Your task to perform on an android device: turn off picture-in-picture Image 0: 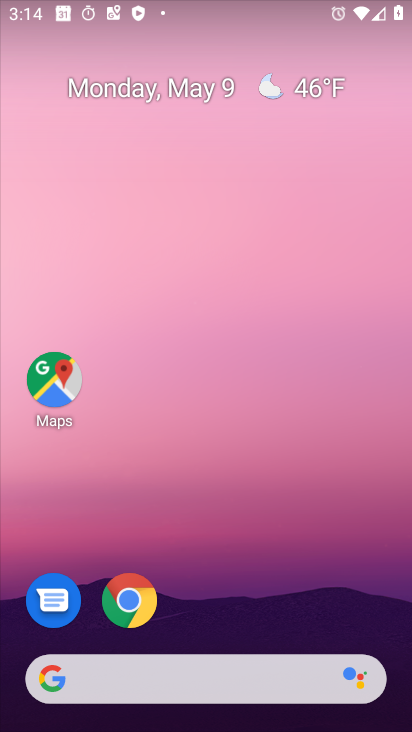
Step 0: drag from (202, 575) to (288, 13)
Your task to perform on an android device: turn off picture-in-picture Image 1: 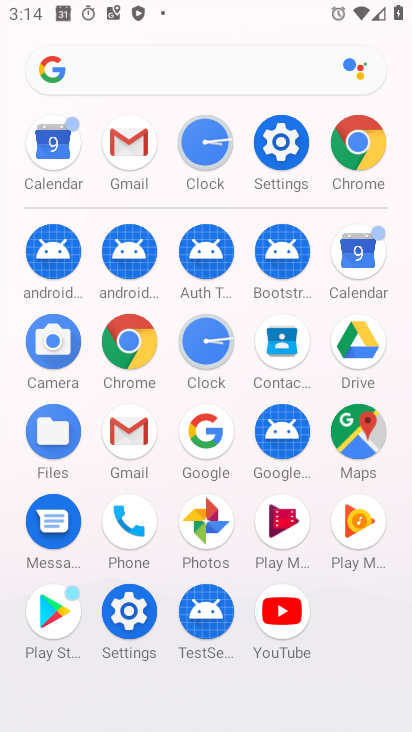
Step 1: click (288, 141)
Your task to perform on an android device: turn off picture-in-picture Image 2: 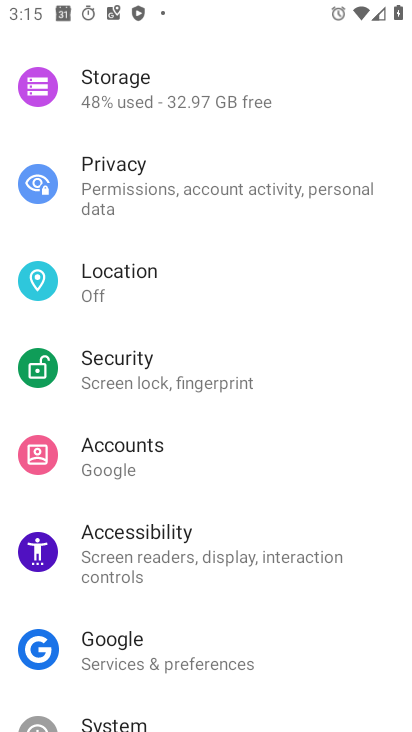
Step 2: drag from (225, 153) to (223, 687)
Your task to perform on an android device: turn off picture-in-picture Image 3: 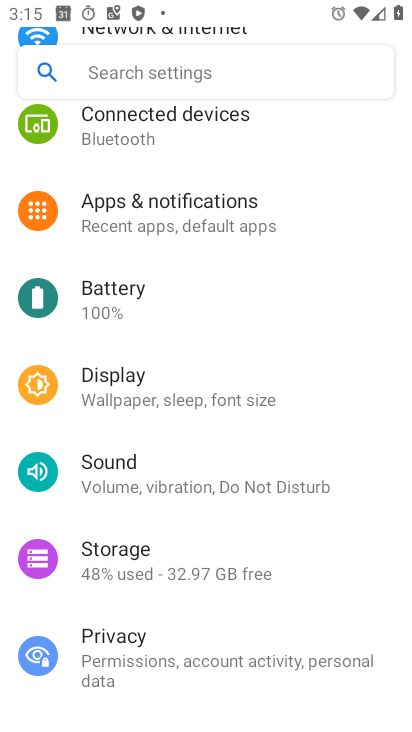
Step 3: click (118, 210)
Your task to perform on an android device: turn off picture-in-picture Image 4: 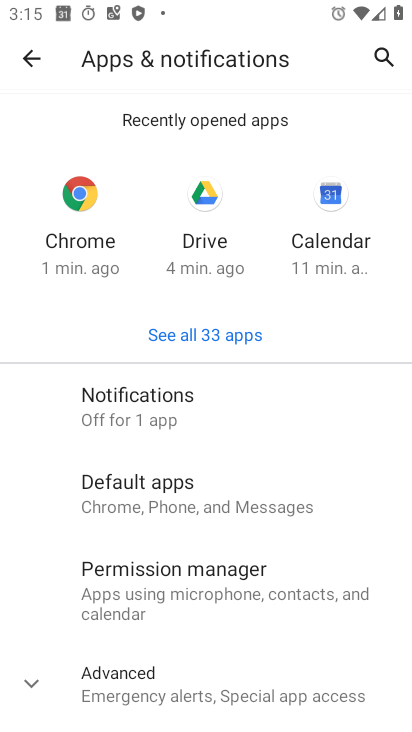
Step 4: drag from (203, 593) to (249, 60)
Your task to perform on an android device: turn off picture-in-picture Image 5: 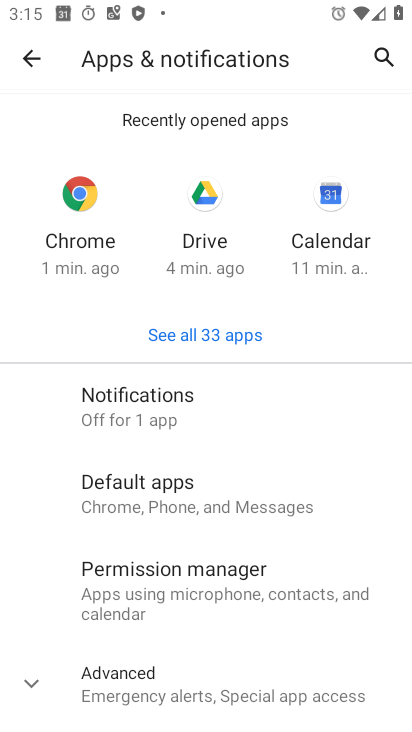
Step 5: click (153, 684)
Your task to perform on an android device: turn off picture-in-picture Image 6: 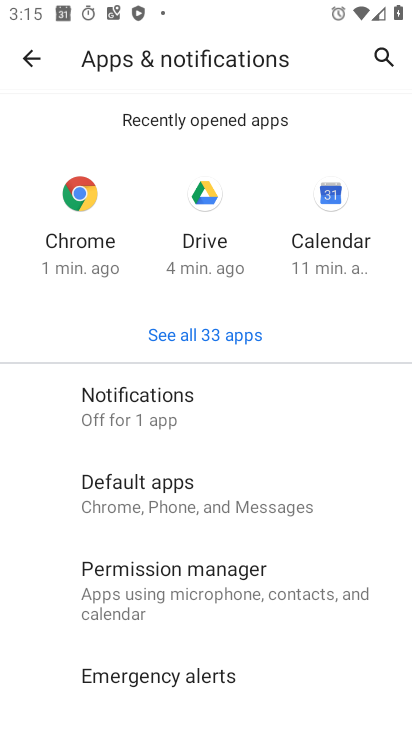
Step 6: drag from (185, 692) to (275, 153)
Your task to perform on an android device: turn off picture-in-picture Image 7: 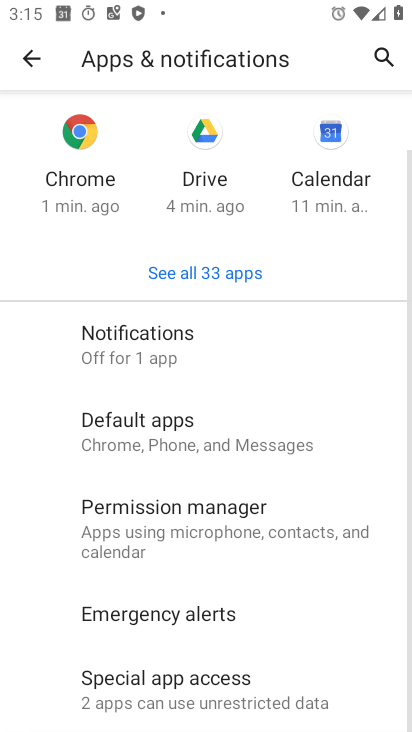
Step 7: click (157, 685)
Your task to perform on an android device: turn off picture-in-picture Image 8: 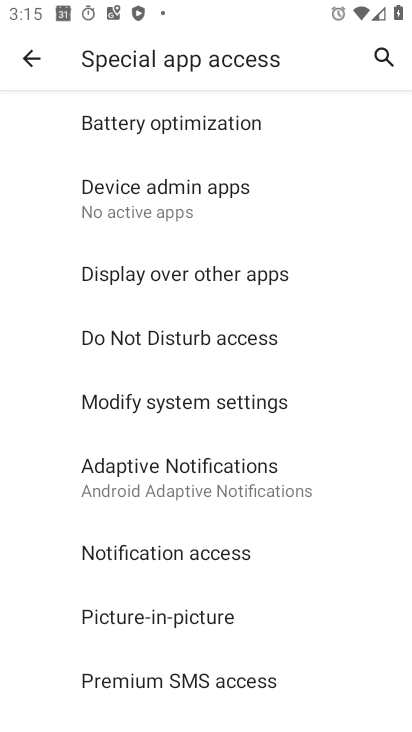
Step 8: click (147, 617)
Your task to perform on an android device: turn off picture-in-picture Image 9: 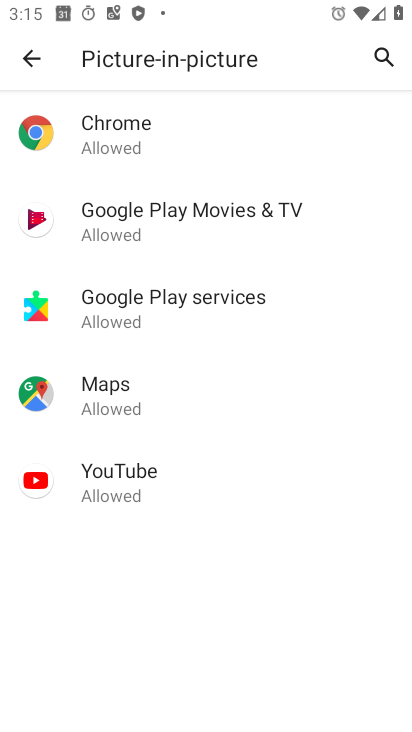
Step 9: click (106, 131)
Your task to perform on an android device: turn off picture-in-picture Image 10: 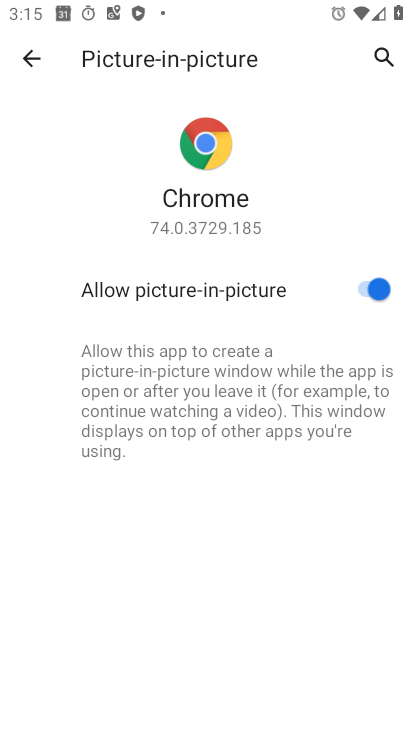
Step 10: click (379, 287)
Your task to perform on an android device: turn off picture-in-picture Image 11: 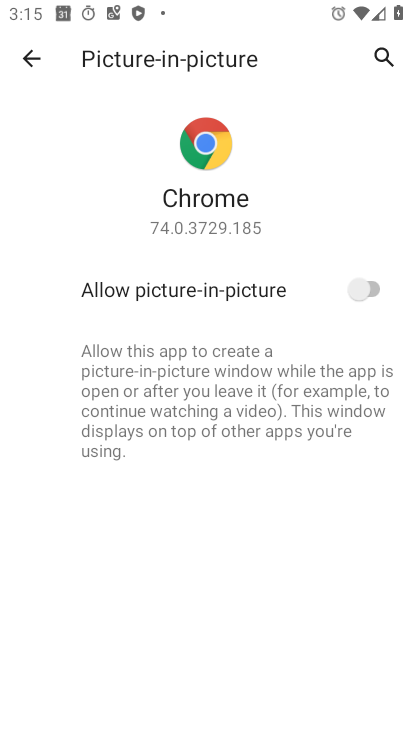
Step 11: task complete